Your task to perform on an android device: open chrome and create a bookmark for the current page Image 0: 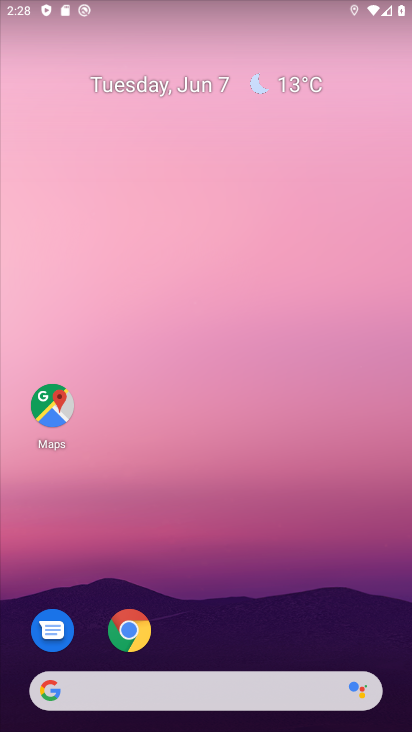
Step 0: click (139, 627)
Your task to perform on an android device: open chrome and create a bookmark for the current page Image 1: 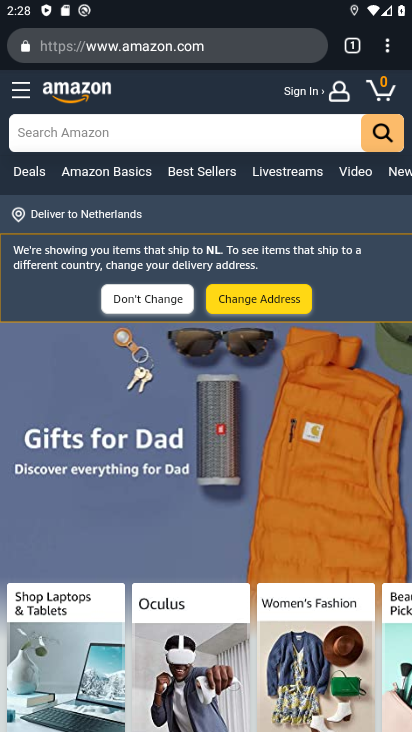
Step 1: task complete